Your task to perform on an android device: Show me productivity apps on the Play Store Image 0: 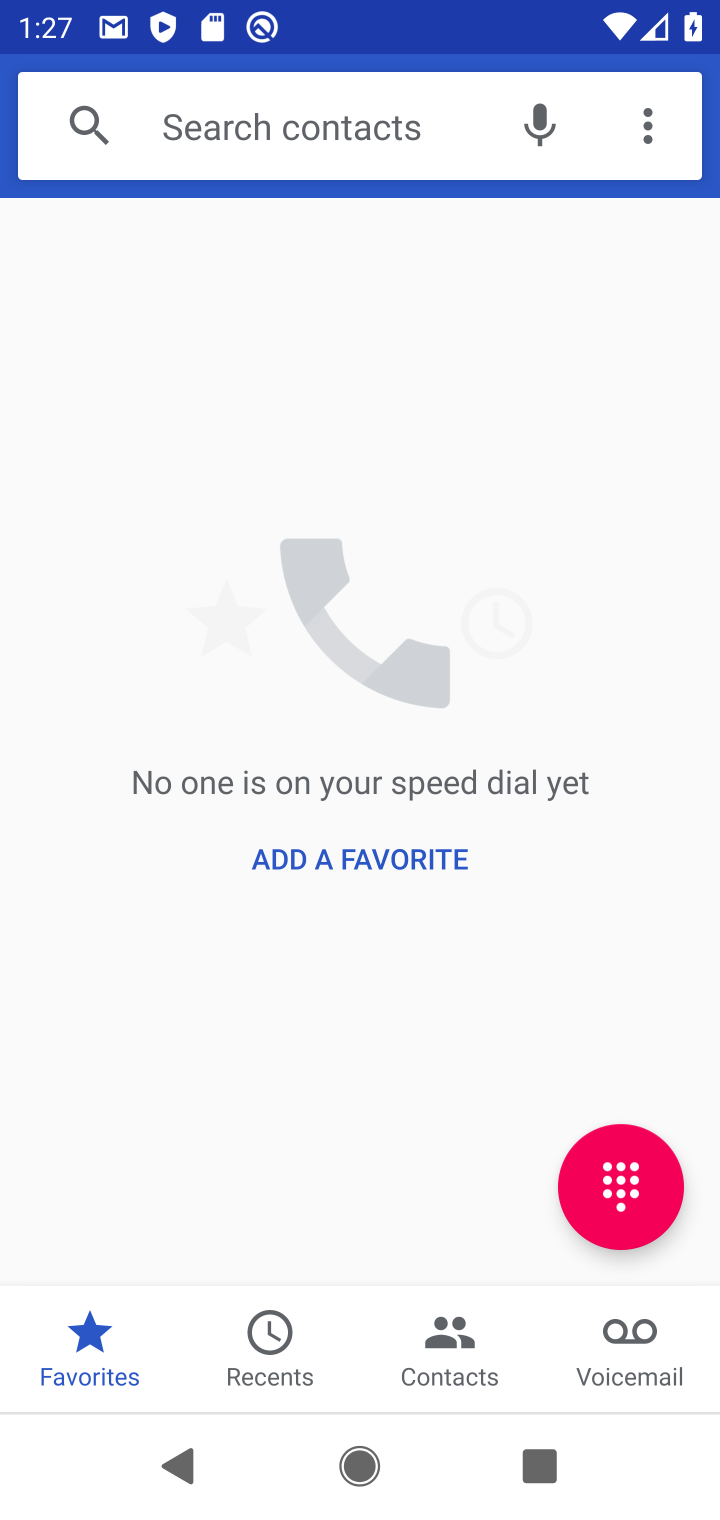
Step 0: press home button
Your task to perform on an android device: Show me productivity apps on the Play Store Image 1: 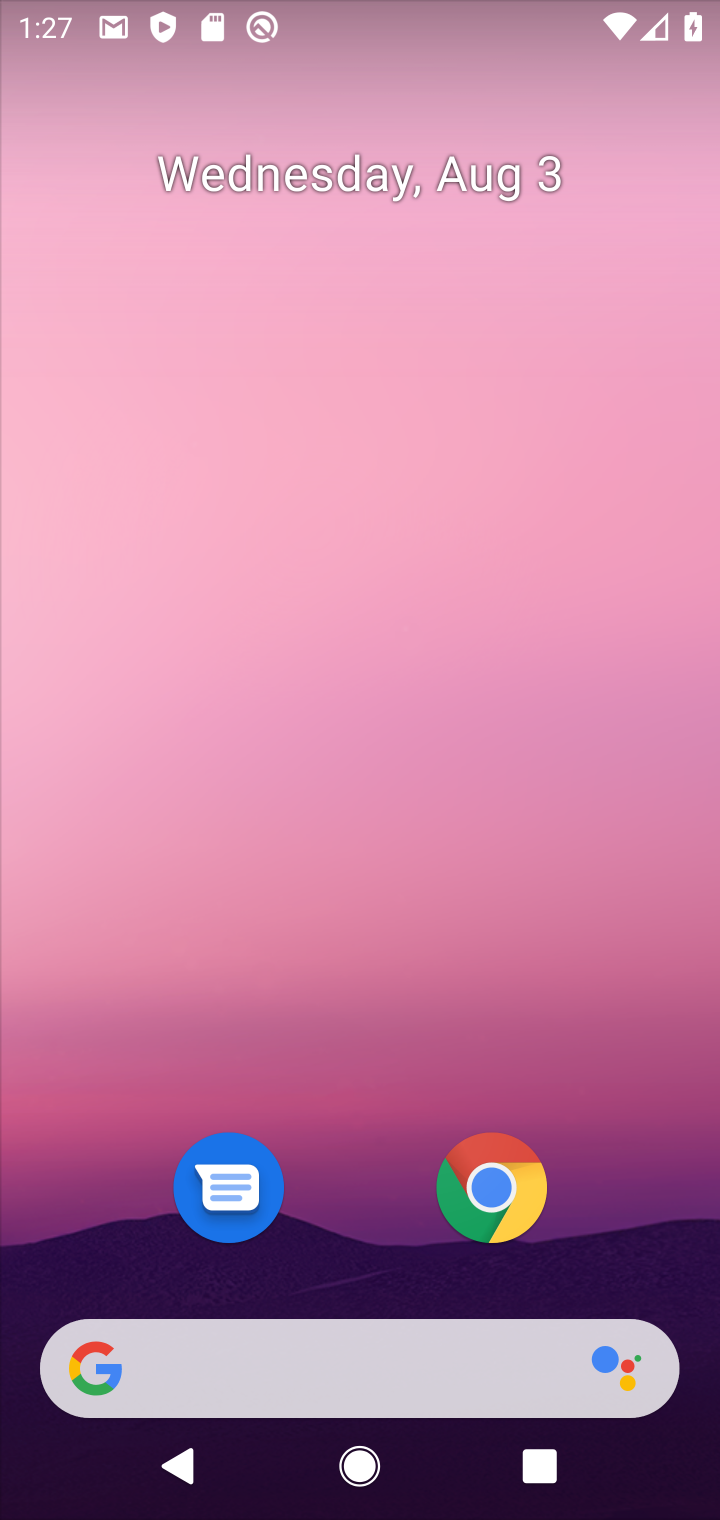
Step 1: drag from (446, 251) to (436, 119)
Your task to perform on an android device: Show me productivity apps on the Play Store Image 2: 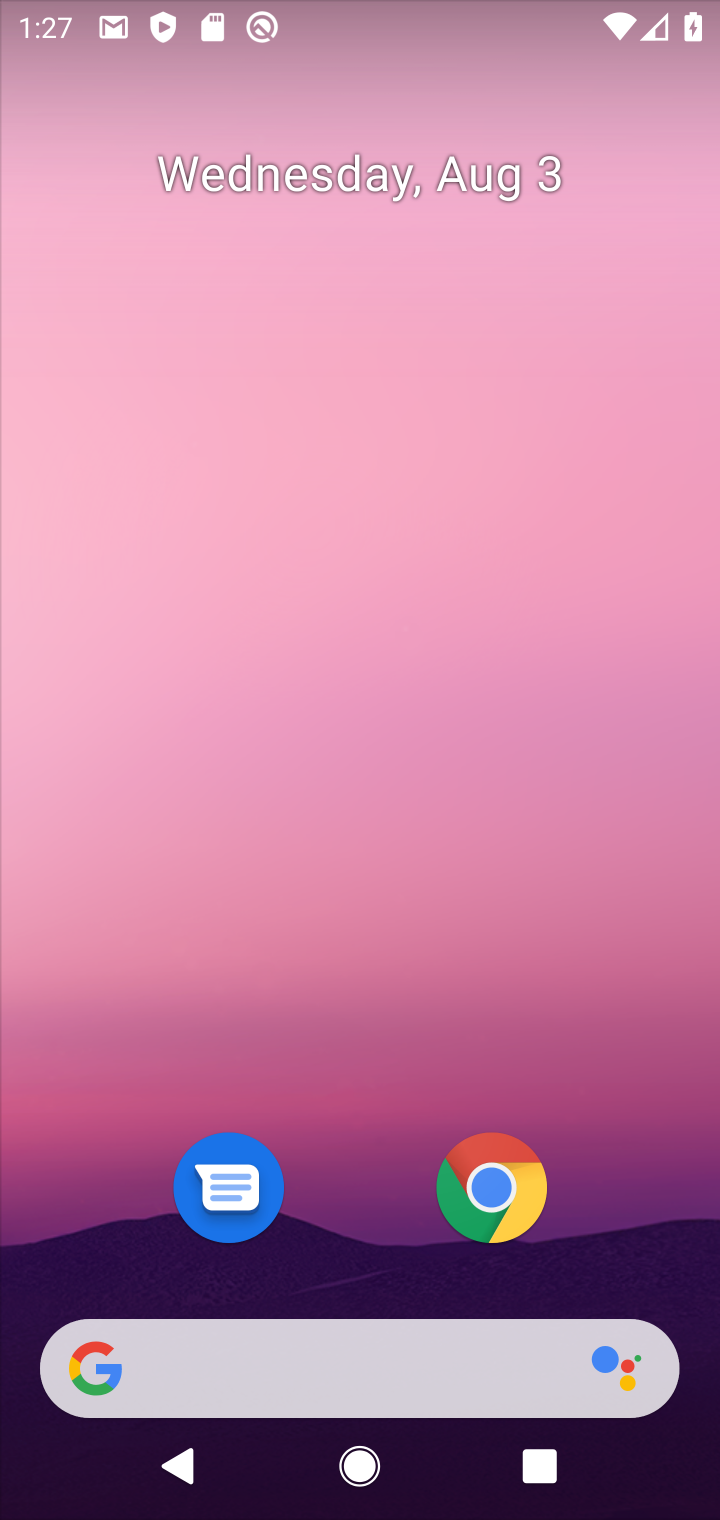
Step 2: drag from (385, 933) to (476, 96)
Your task to perform on an android device: Show me productivity apps on the Play Store Image 3: 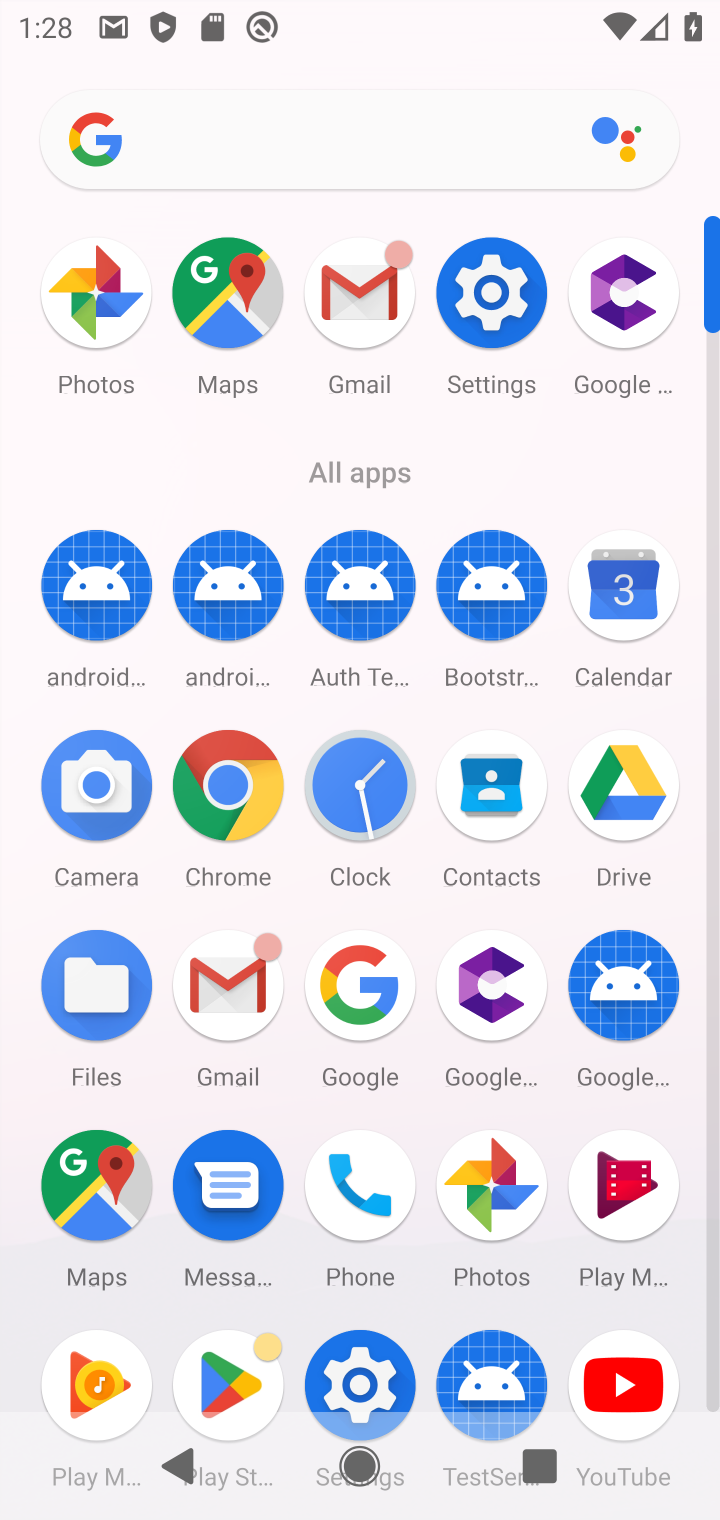
Step 3: click (243, 1367)
Your task to perform on an android device: Show me productivity apps on the Play Store Image 4: 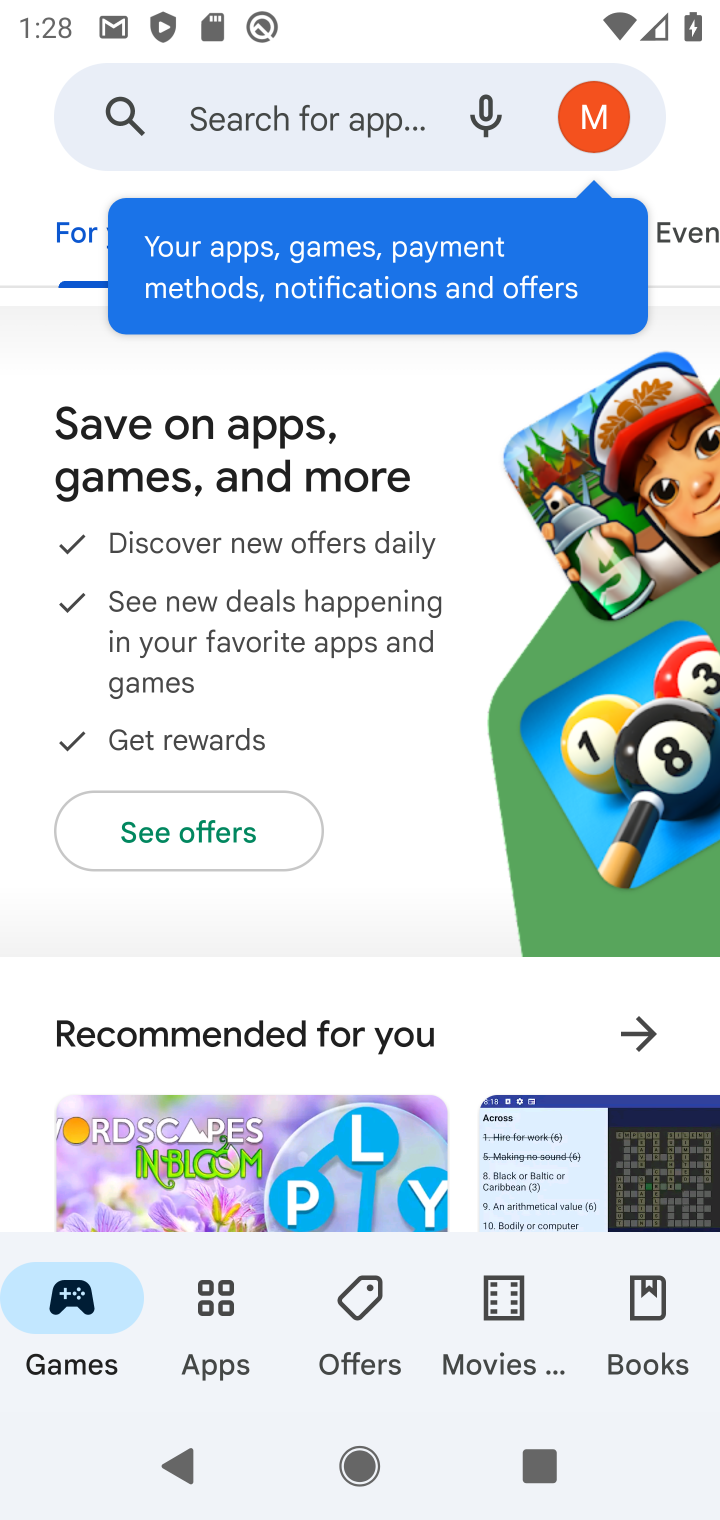
Step 4: click (221, 1304)
Your task to perform on an android device: Show me productivity apps on the Play Store Image 5: 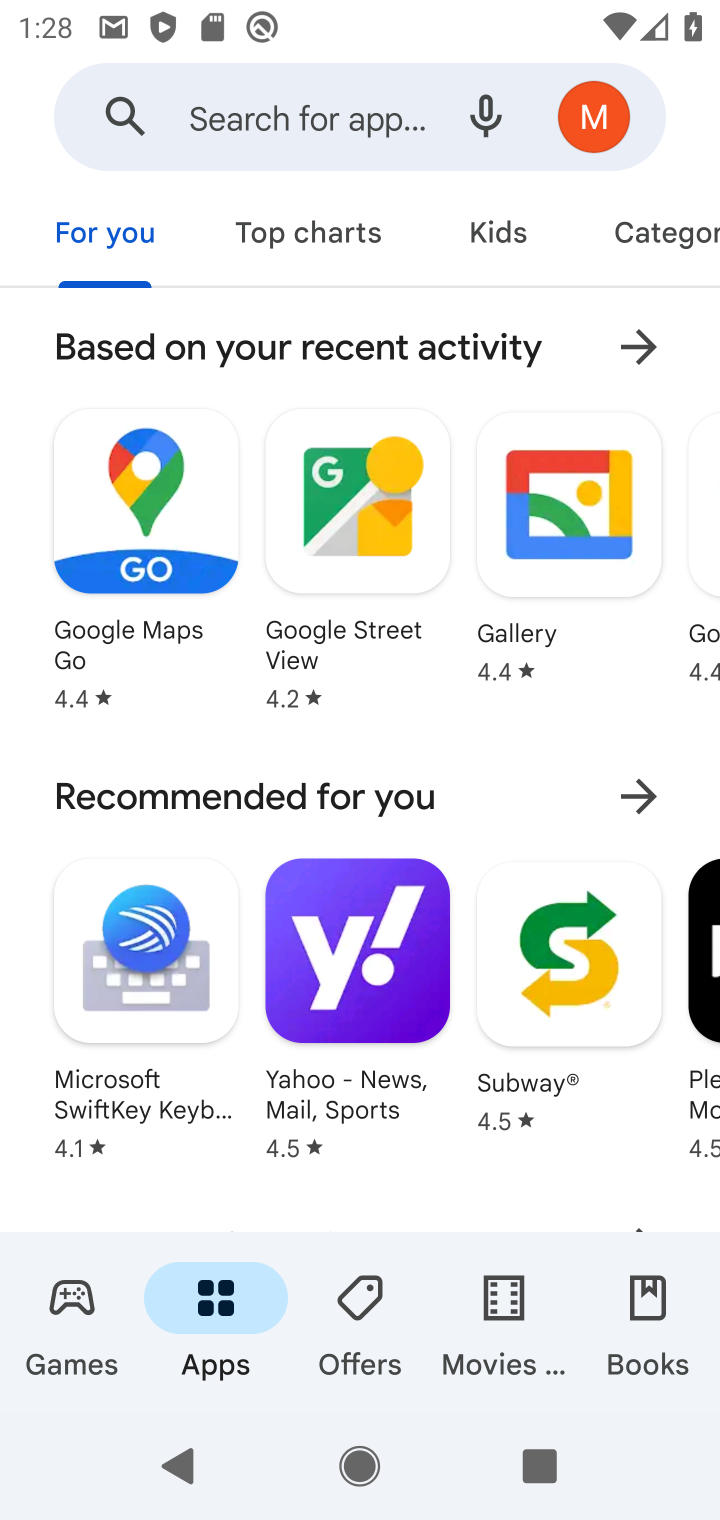
Step 5: click (677, 235)
Your task to perform on an android device: Show me productivity apps on the Play Store Image 6: 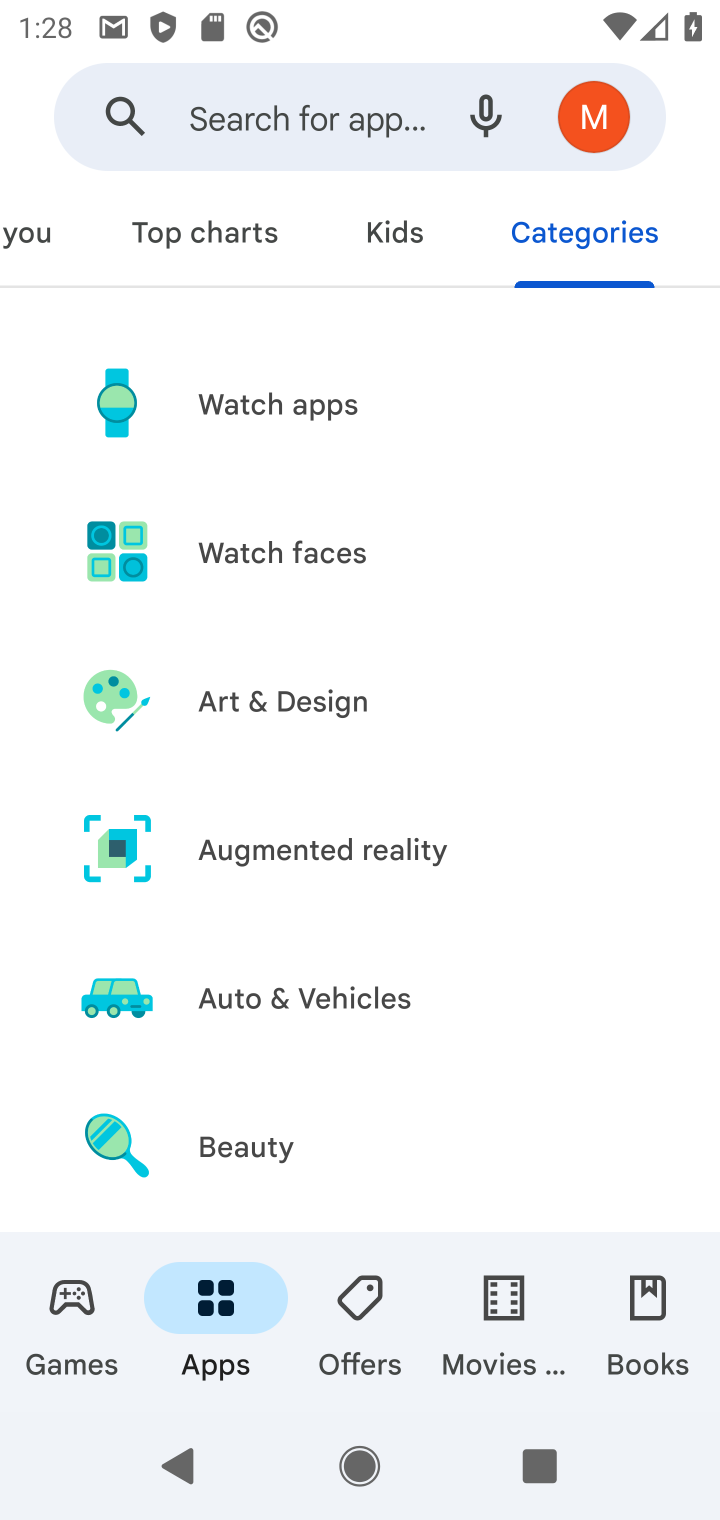
Step 6: drag from (394, 1037) to (369, 391)
Your task to perform on an android device: Show me productivity apps on the Play Store Image 7: 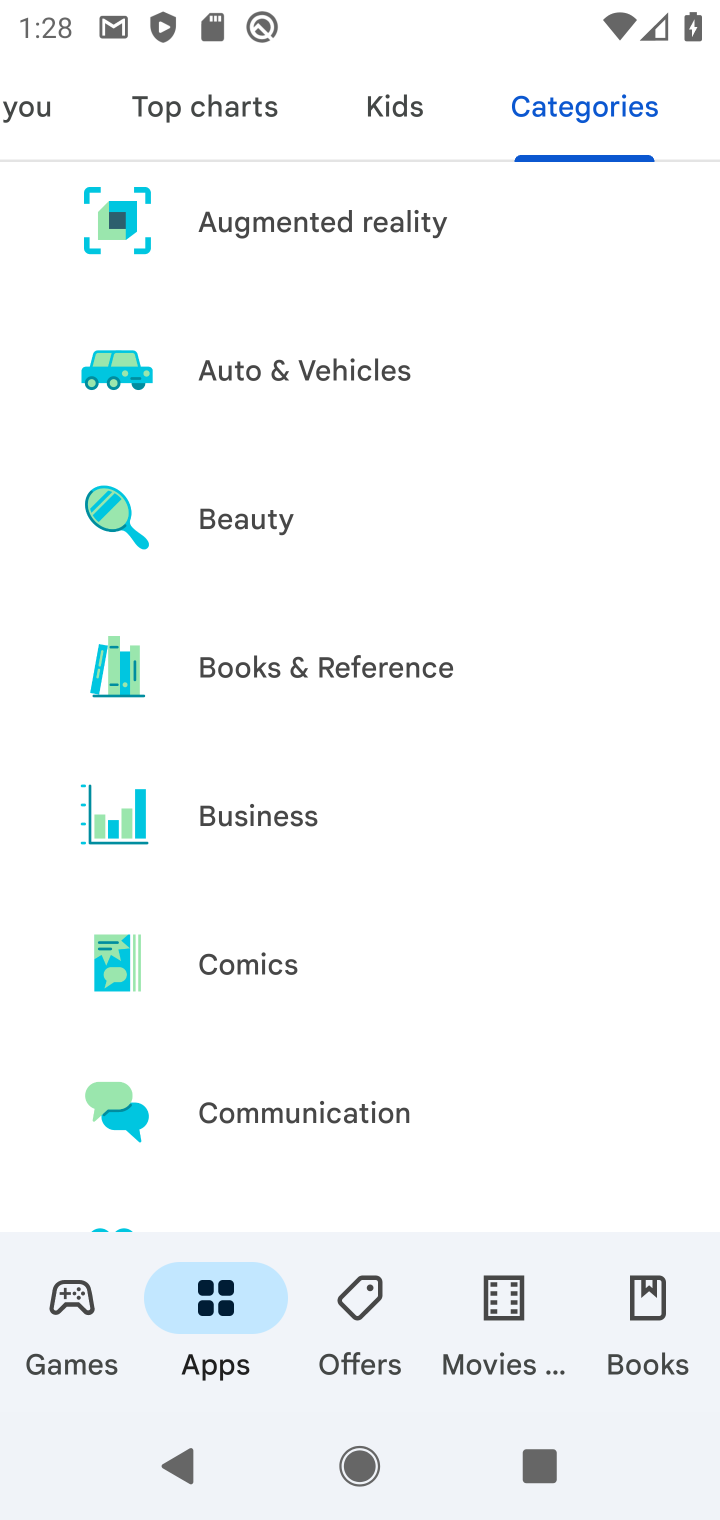
Step 7: drag from (375, 1149) to (439, 316)
Your task to perform on an android device: Show me productivity apps on the Play Store Image 8: 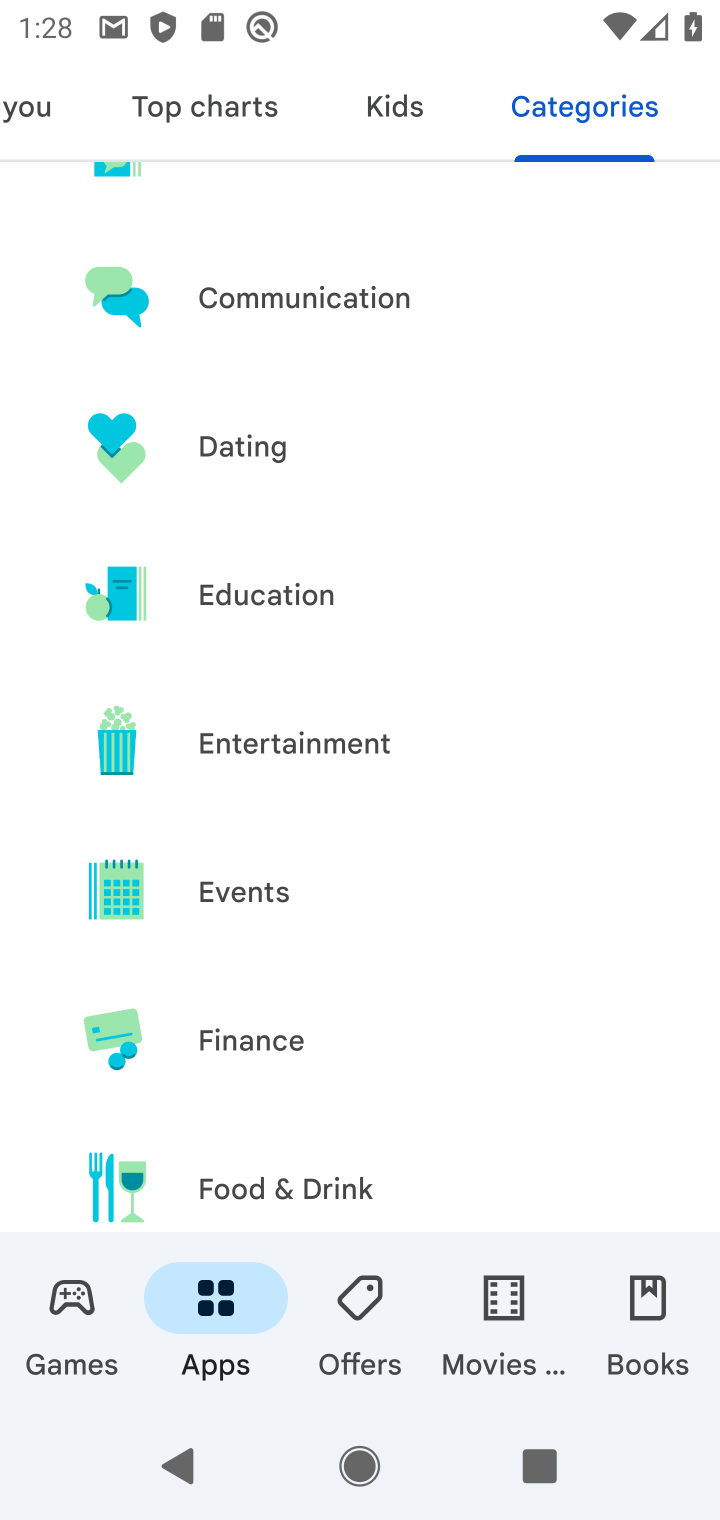
Step 8: drag from (395, 908) to (431, 327)
Your task to perform on an android device: Show me productivity apps on the Play Store Image 9: 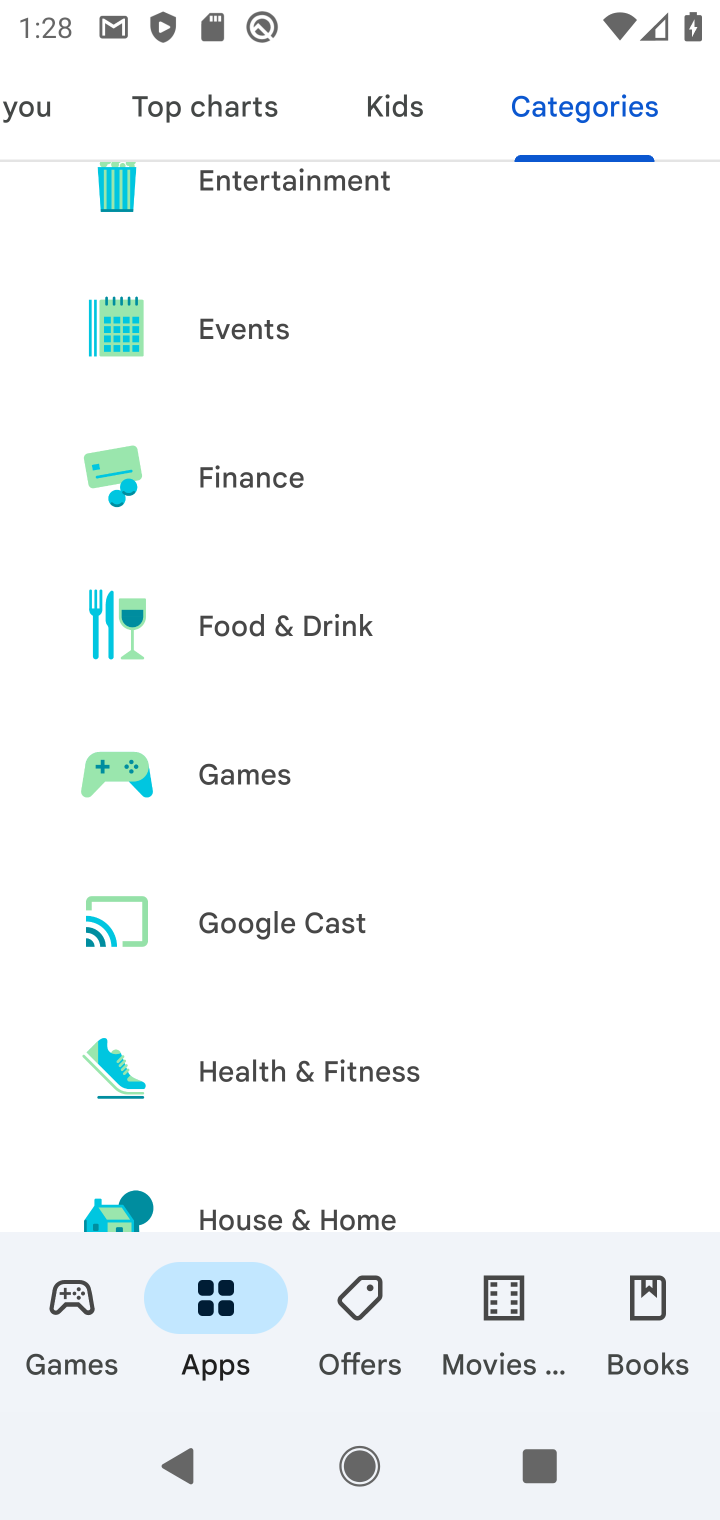
Step 9: drag from (424, 1116) to (438, 249)
Your task to perform on an android device: Show me productivity apps on the Play Store Image 10: 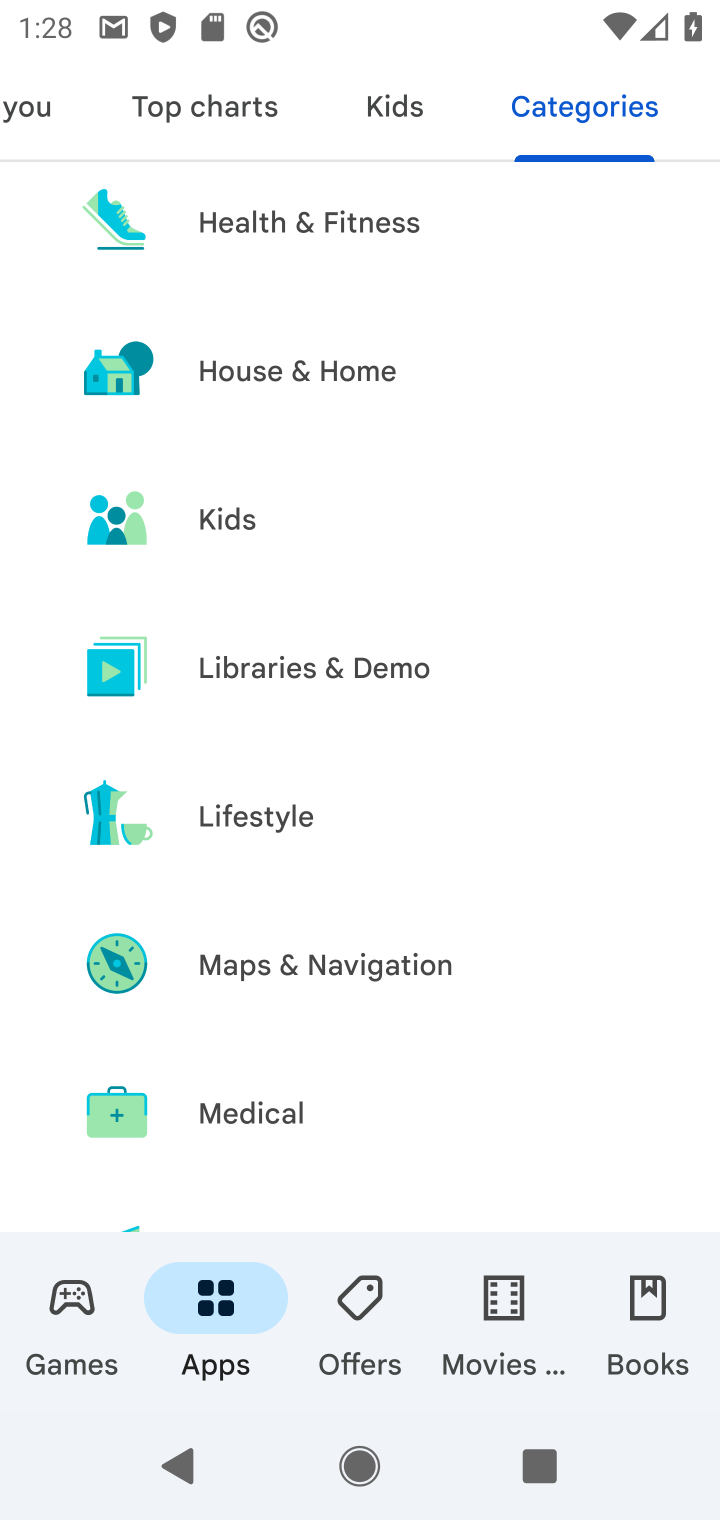
Step 10: drag from (406, 1055) to (385, 243)
Your task to perform on an android device: Show me productivity apps on the Play Store Image 11: 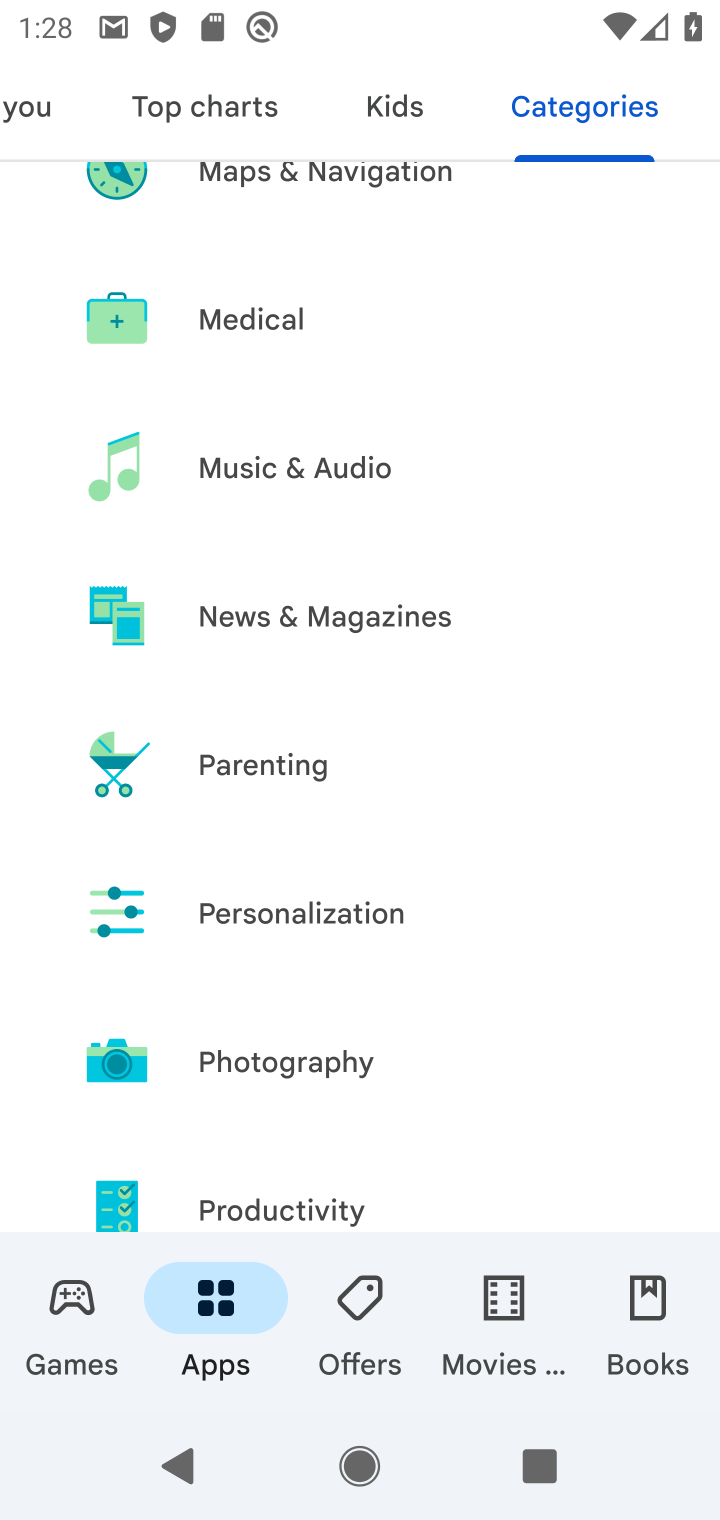
Step 11: drag from (430, 974) to (440, 374)
Your task to perform on an android device: Show me productivity apps on the Play Store Image 12: 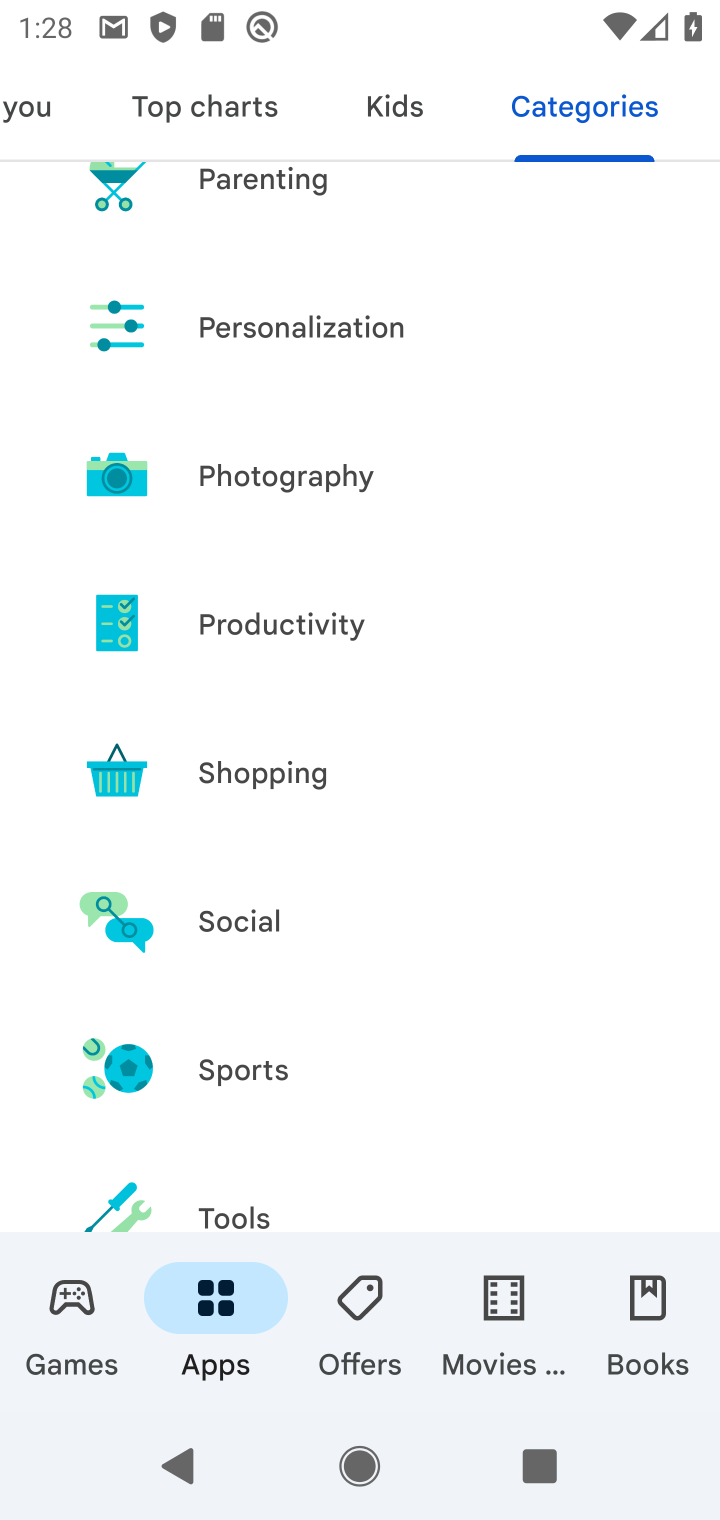
Step 12: click (354, 617)
Your task to perform on an android device: Show me productivity apps on the Play Store Image 13: 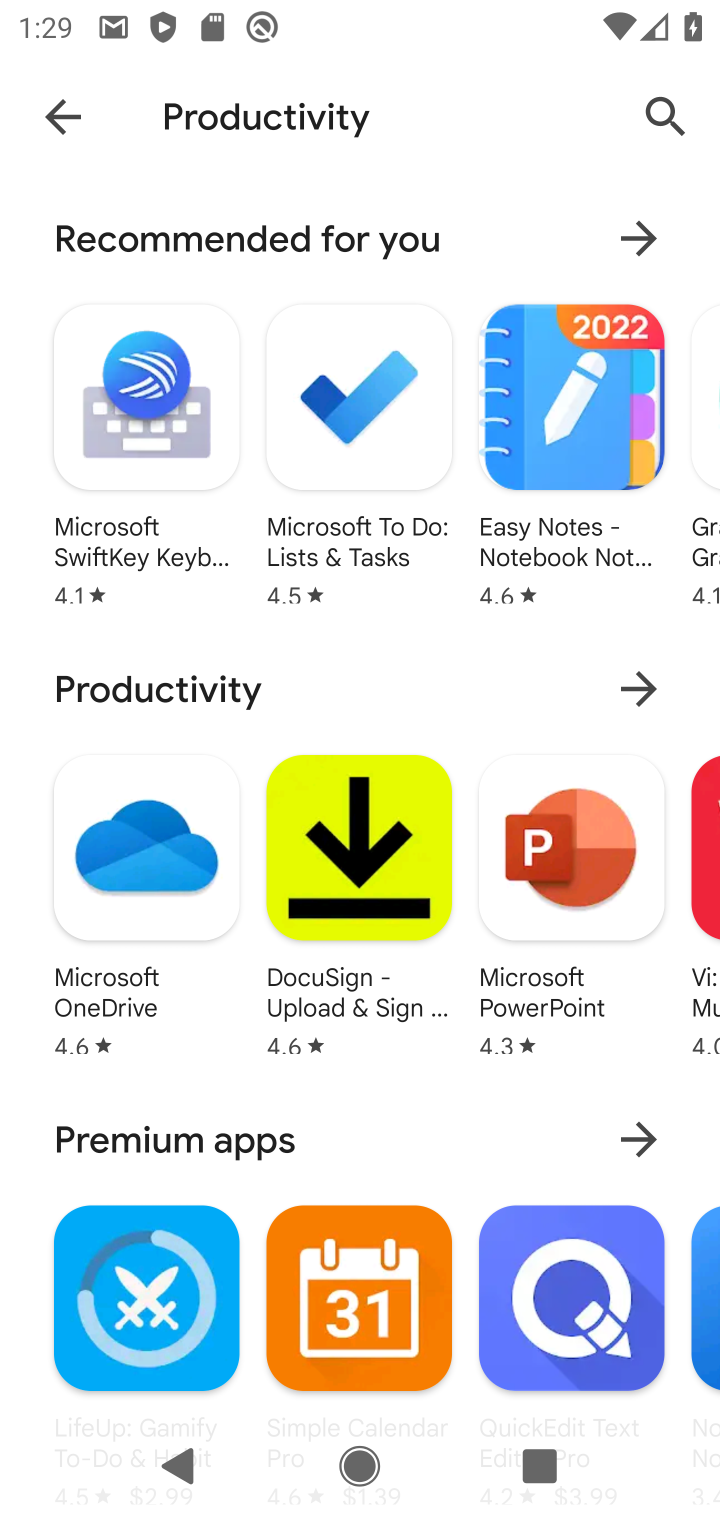
Step 13: click (630, 684)
Your task to perform on an android device: Show me productivity apps on the Play Store Image 14: 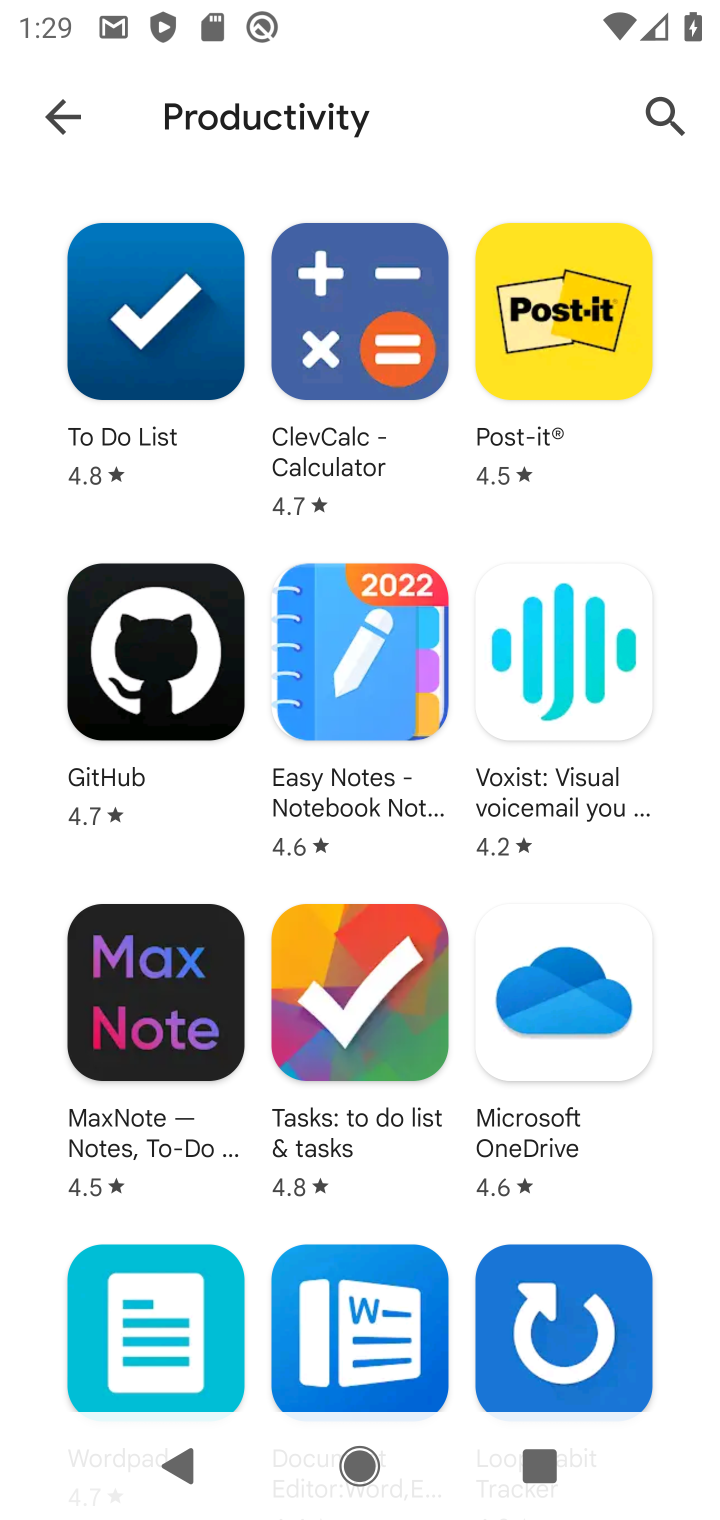
Step 14: task complete